Your task to perform on an android device: change the clock style Image 0: 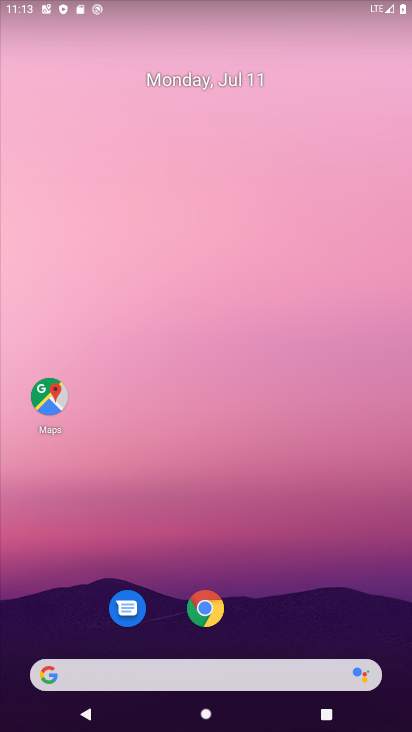
Step 0: drag from (54, 724) to (226, 83)
Your task to perform on an android device: change the clock style Image 1: 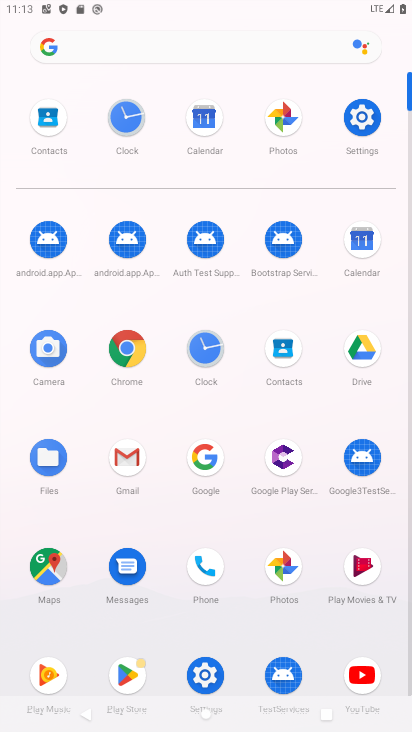
Step 1: click (201, 335)
Your task to perform on an android device: change the clock style Image 2: 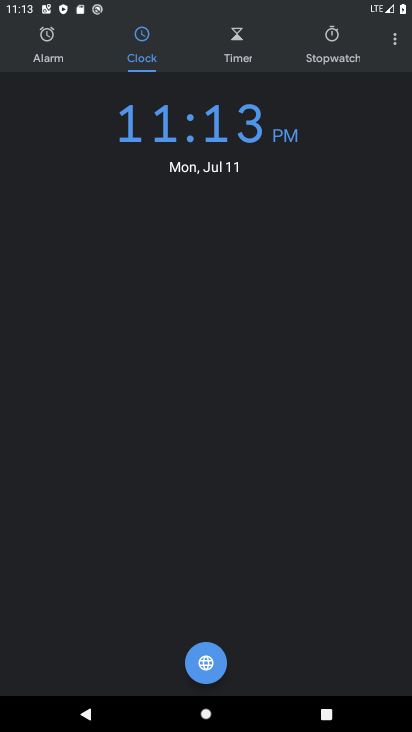
Step 2: click (384, 44)
Your task to perform on an android device: change the clock style Image 3: 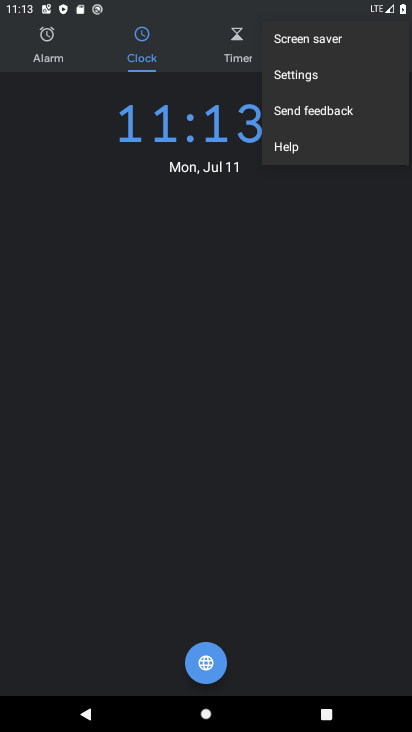
Step 3: click (318, 77)
Your task to perform on an android device: change the clock style Image 4: 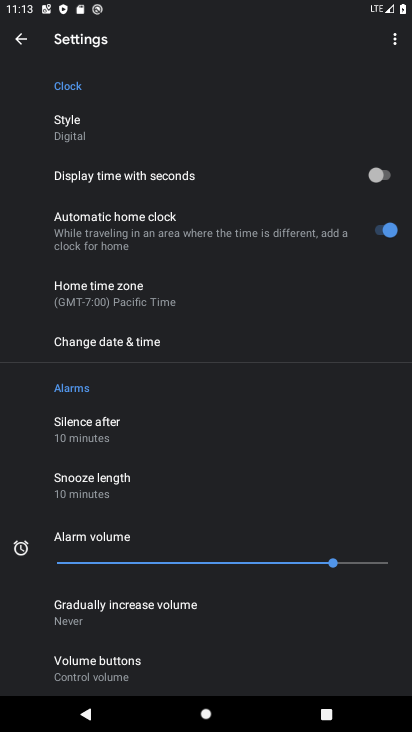
Step 4: drag from (206, 638) to (203, 308)
Your task to perform on an android device: change the clock style Image 5: 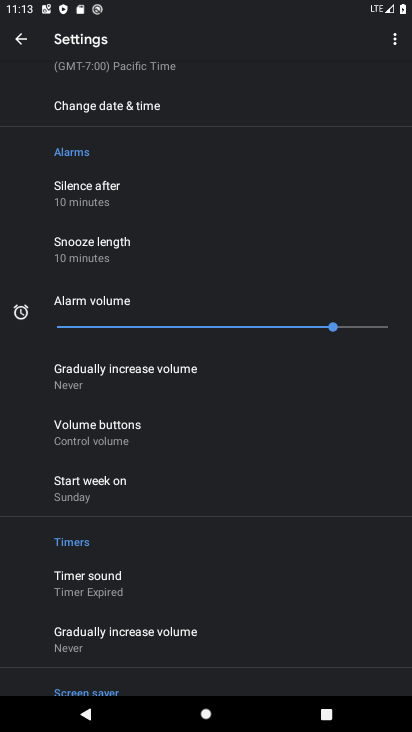
Step 5: drag from (204, 143) to (217, 491)
Your task to perform on an android device: change the clock style Image 6: 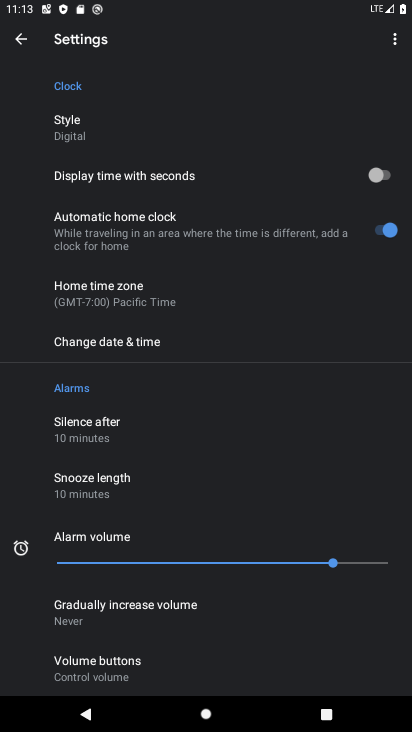
Step 6: click (125, 139)
Your task to perform on an android device: change the clock style Image 7: 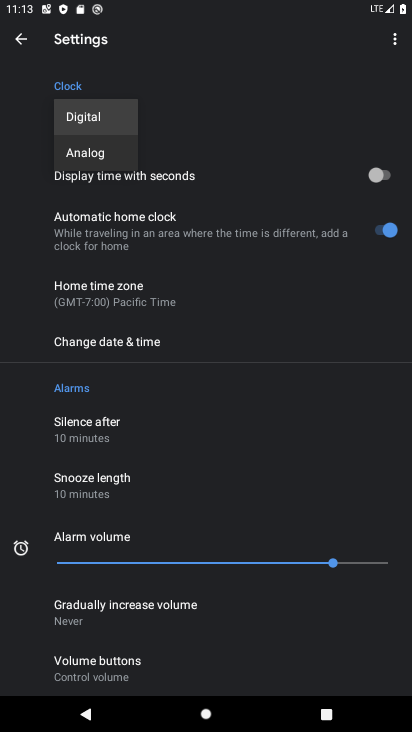
Step 7: click (117, 156)
Your task to perform on an android device: change the clock style Image 8: 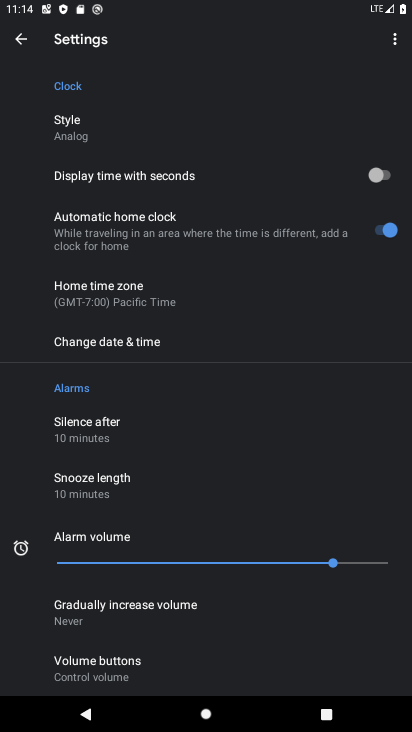
Step 8: task complete